Your task to perform on an android device: empty trash in google photos Image 0: 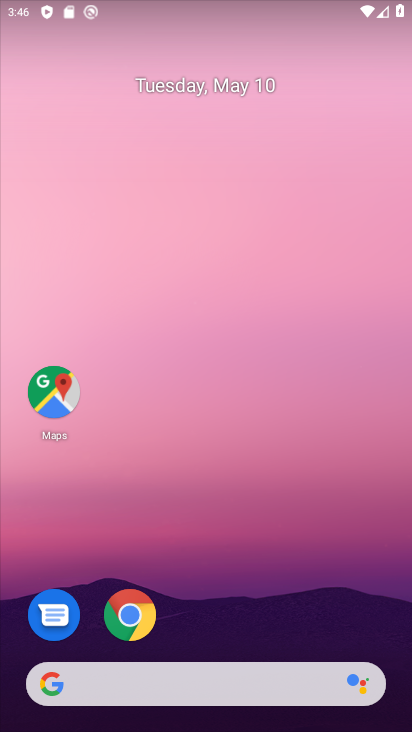
Step 0: drag from (322, 428) to (333, 216)
Your task to perform on an android device: empty trash in google photos Image 1: 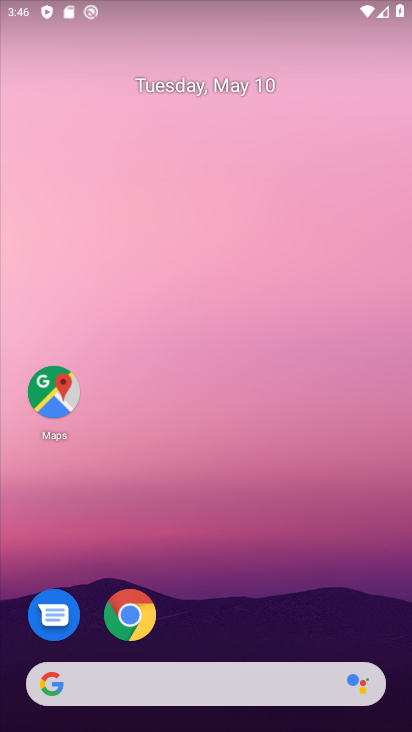
Step 1: drag from (247, 579) to (301, 118)
Your task to perform on an android device: empty trash in google photos Image 2: 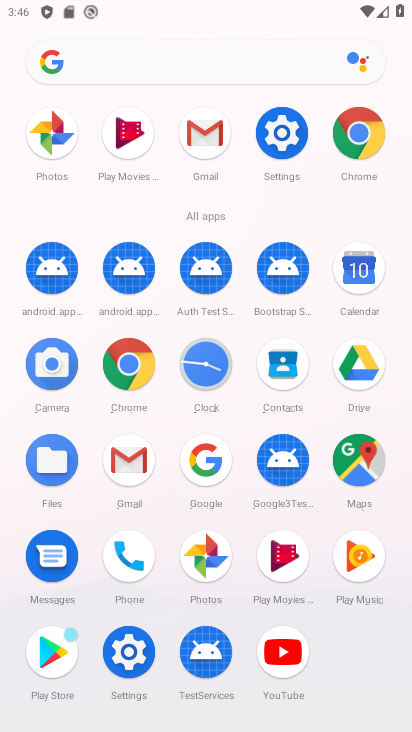
Step 2: click (207, 556)
Your task to perform on an android device: empty trash in google photos Image 3: 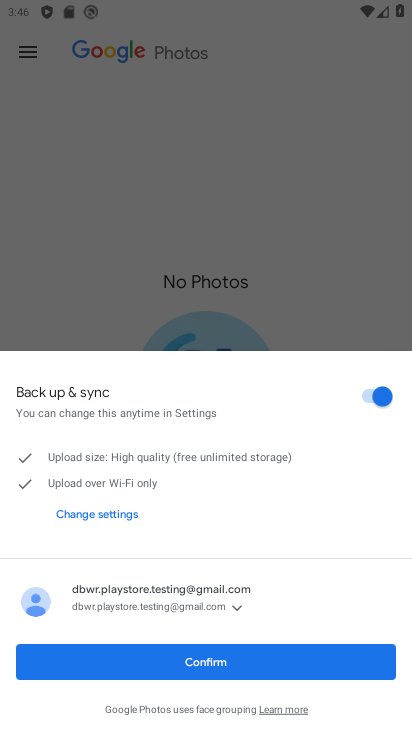
Step 3: click (322, 238)
Your task to perform on an android device: empty trash in google photos Image 4: 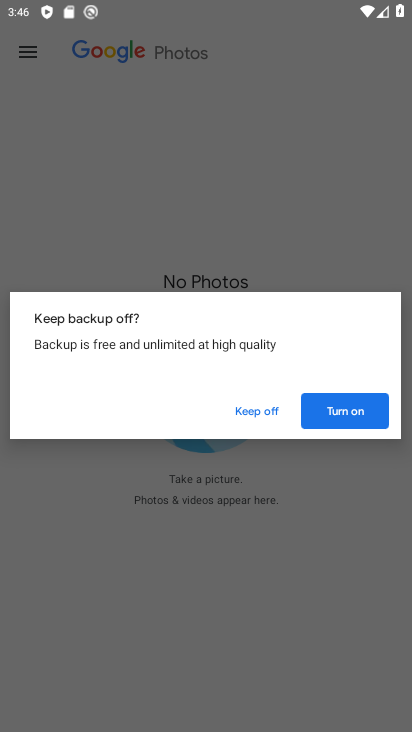
Step 4: click (306, 412)
Your task to perform on an android device: empty trash in google photos Image 5: 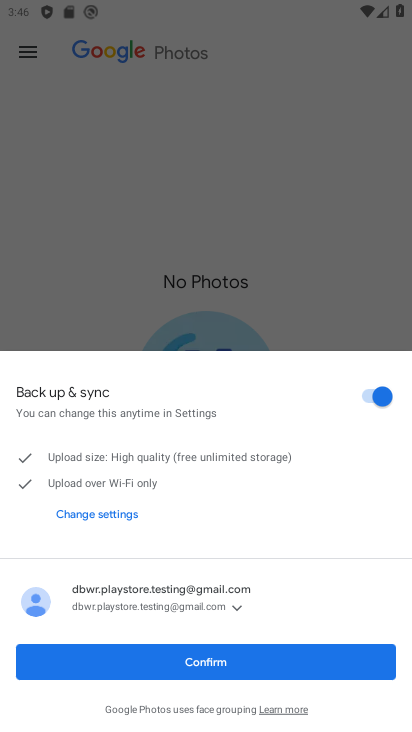
Step 5: click (146, 661)
Your task to perform on an android device: empty trash in google photos Image 6: 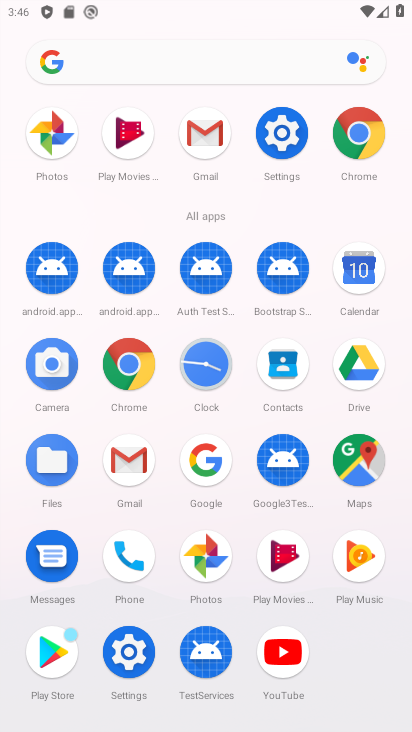
Step 6: drag from (37, 60) to (323, 101)
Your task to perform on an android device: empty trash in google photos Image 7: 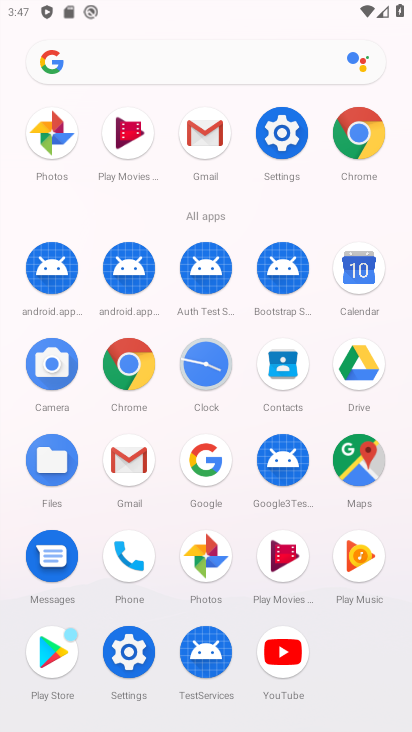
Step 7: click (208, 556)
Your task to perform on an android device: empty trash in google photos Image 8: 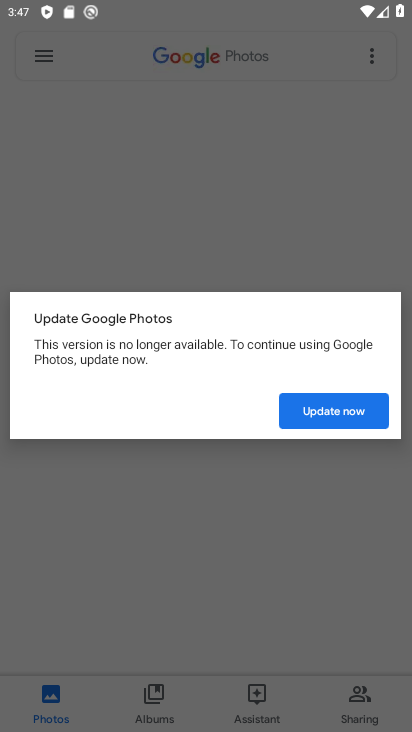
Step 8: click (327, 414)
Your task to perform on an android device: empty trash in google photos Image 9: 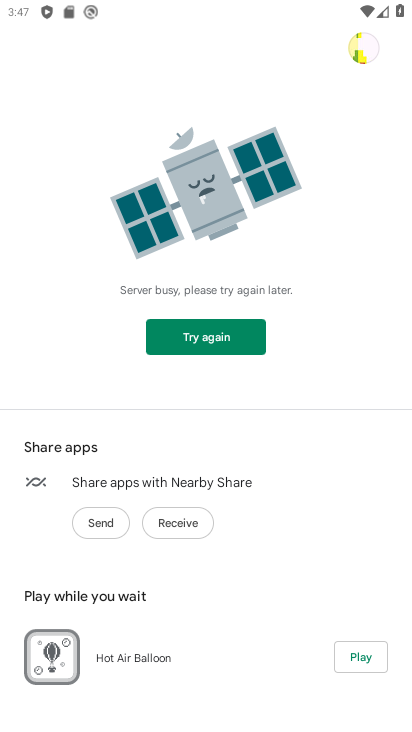
Step 9: click (232, 342)
Your task to perform on an android device: empty trash in google photos Image 10: 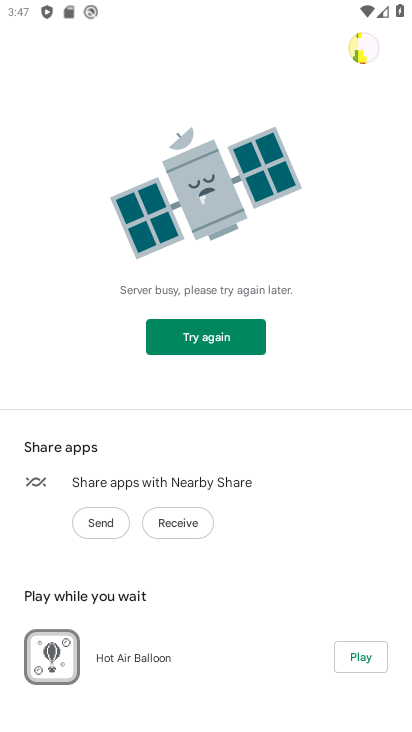
Step 10: task complete